Your task to perform on an android device: Open the map Image 0: 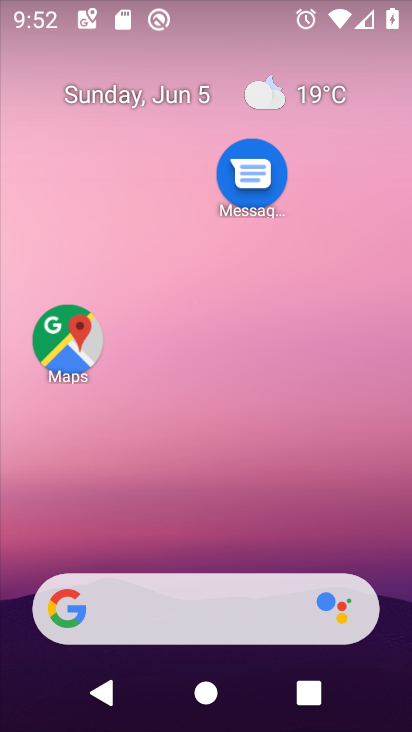
Step 0: click (267, 11)
Your task to perform on an android device: Open the map Image 1: 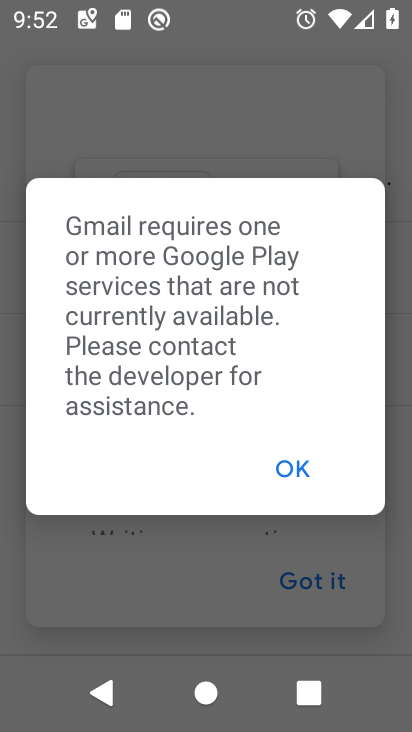
Step 1: press home button
Your task to perform on an android device: Open the map Image 2: 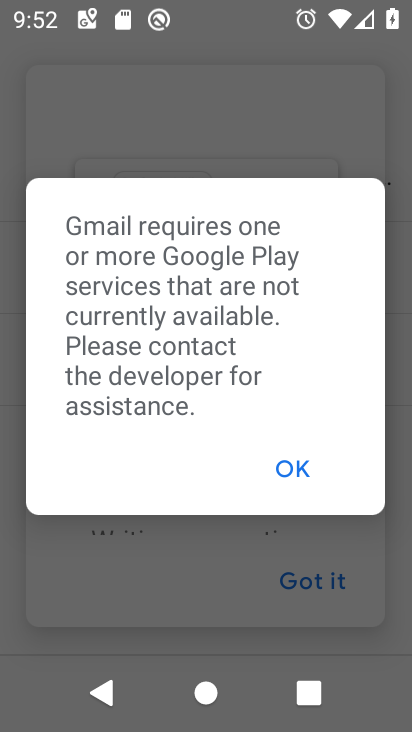
Step 2: drag from (190, 461) to (212, 275)
Your task to perform on an android device: Open the map Image 3: 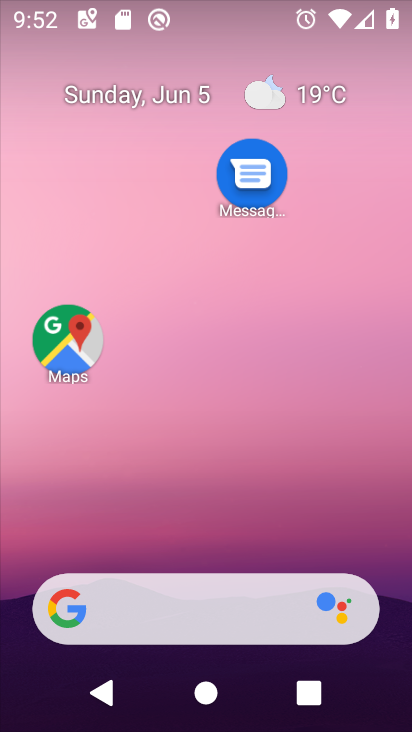
Step 3: click (81, 319)
Your task to perform on an android device: Open the map Image 4: 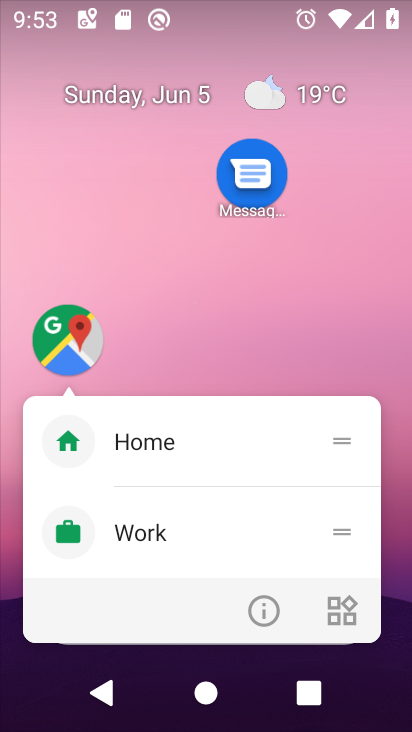
Step 4: click (258, 610)
Your task to perform on an android device: Open the map Image 5: 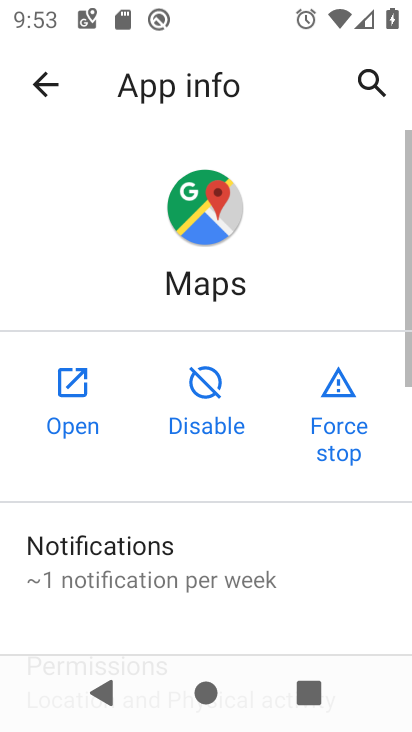
Step 5: click (87, 385)
Your task to perform on an android device: Open the map Image 6: 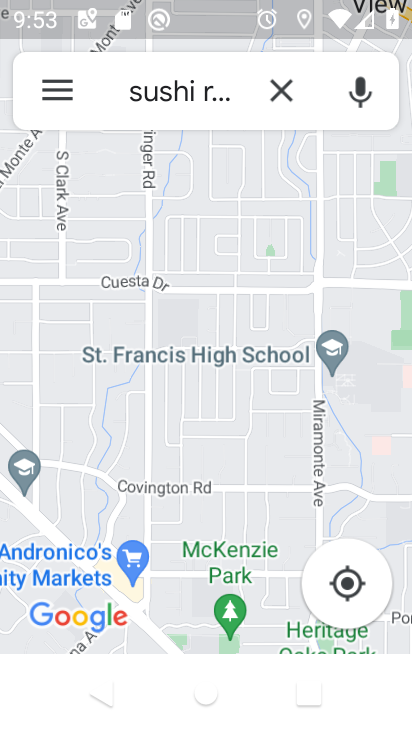
Step 6: task complete